Your task to perform on an android device: Open Youtube and go to "Your channel" Image 0: 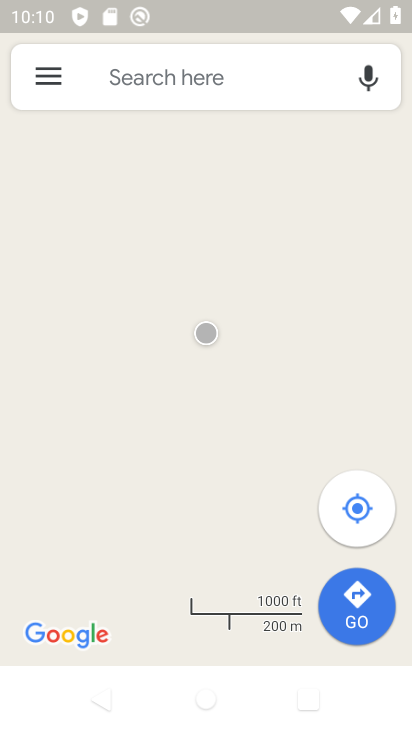
Step 0: press home button
Your task to perform on an android device: Open Youtube and go to "Your channel" Image 1: 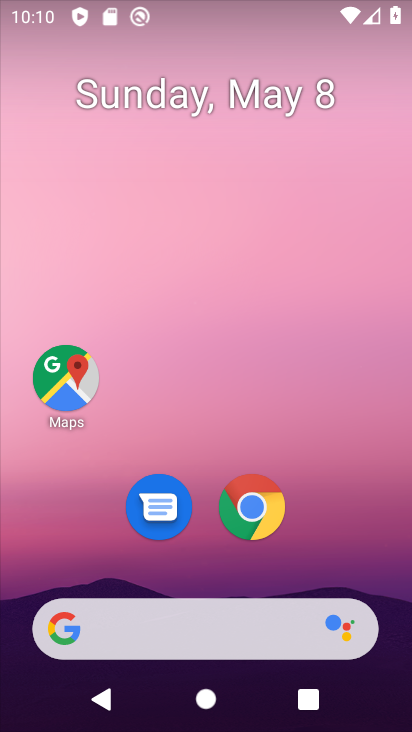
Step 1: drag from (236, 576) to (279, 174)
Your task to perform on an android device: Open Youtube and go to "Your channel" Image 2: 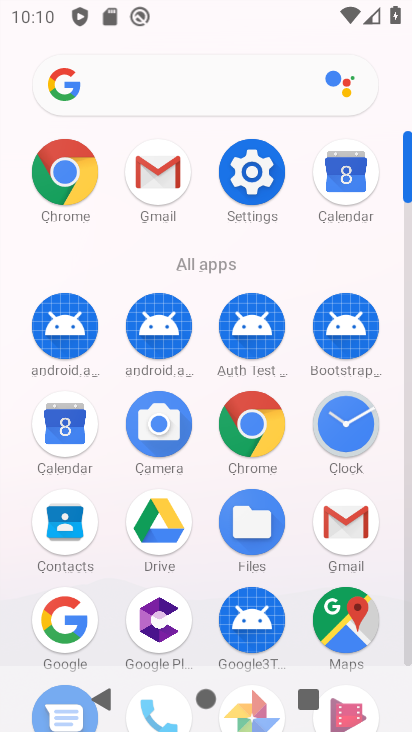
Step 2: drag from (299, 644) to (294, 334)
Your task to perform on an android device: Open Youtube and go to "Your channel" Image 3: 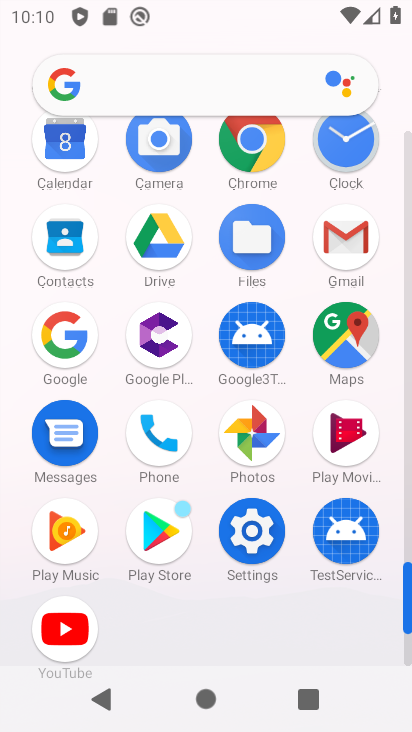
Step 3: click (59, 638)
Your task to perform on an android device: Open Youtube and go to "Your channel" Image 4: 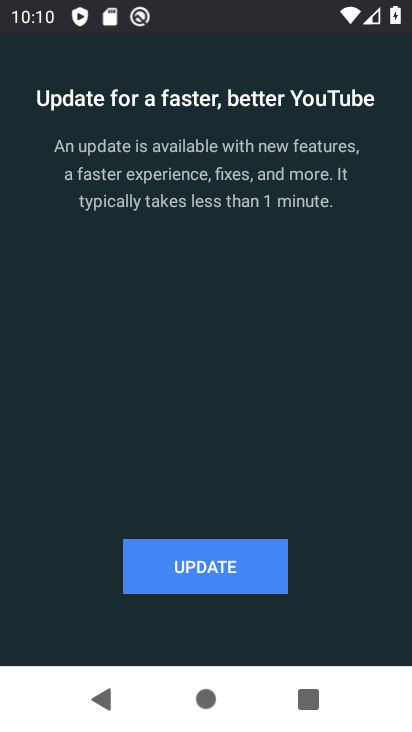
Step 4: click (198, 554)
Your task to perform on an android device: Open Youtube and go to "Your channel" Image 5: 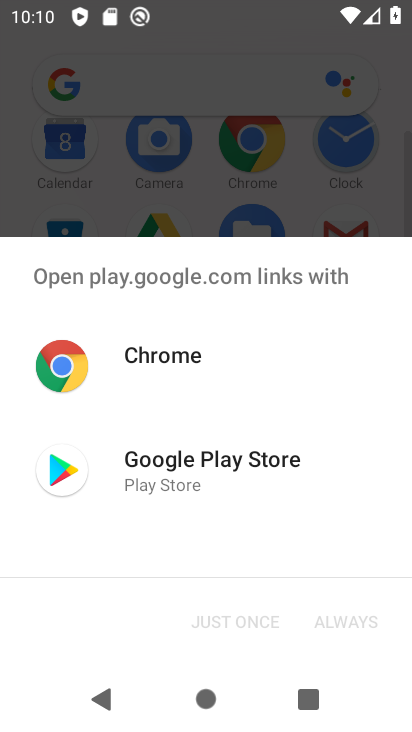
Step 5: drag from (164, 556) to (207, 526)
Your task to perform on an android device: Open Youtube and go to "Your channel" Image 6: 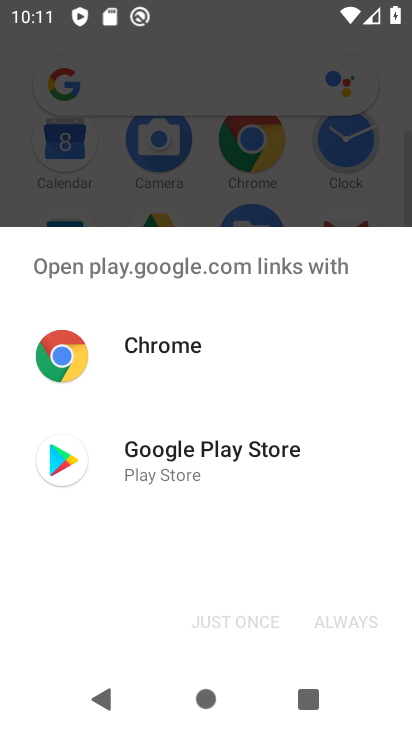
Step 6: click (267, 492)
Your task to perform on an android device: Open Youtube and go to "Your channel" Image 7: 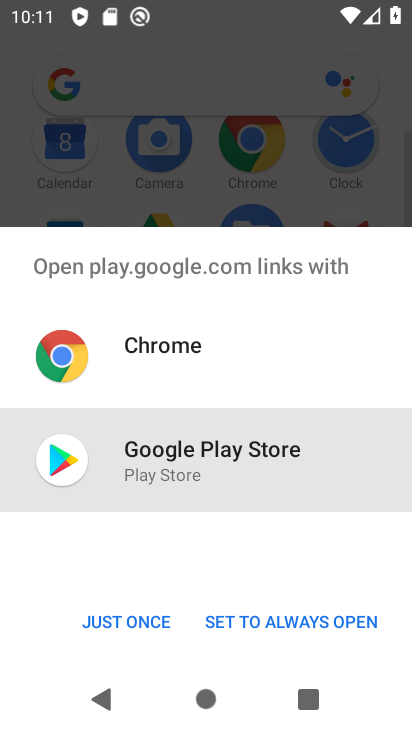
Step 7: click (90, 626)
Your task to perform on an android device: Open Youtube and go to "Your channel" Image 8: 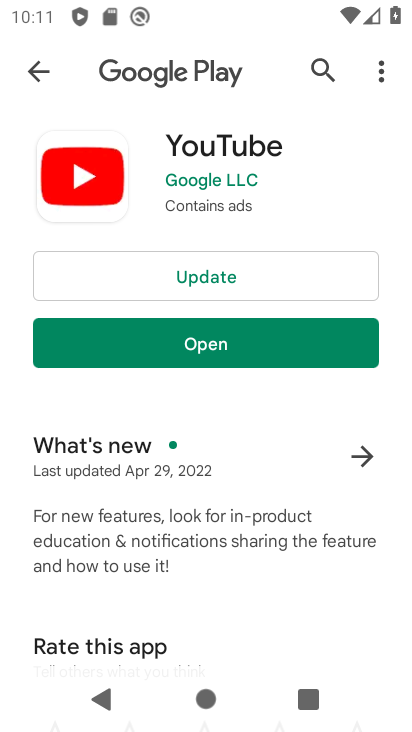
Step 8: click (223, 283)
Your task to perform on an android device: Open Youtube and go to "Your channel" Image 9: 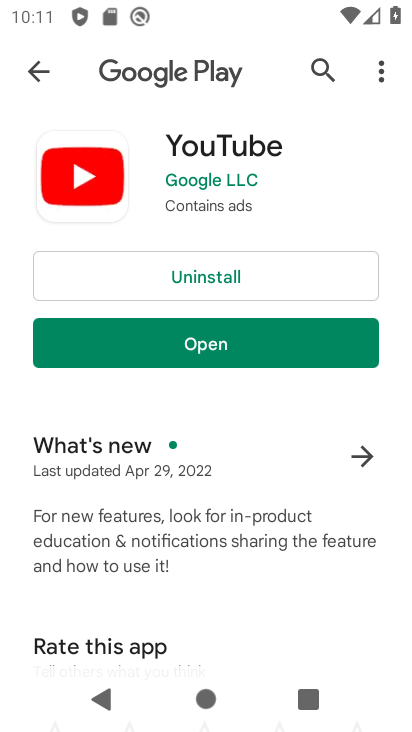
Step 9: click (212, 339)
Your task to perform on an android device: Open Youtube and go to "Your channel" Image 10: 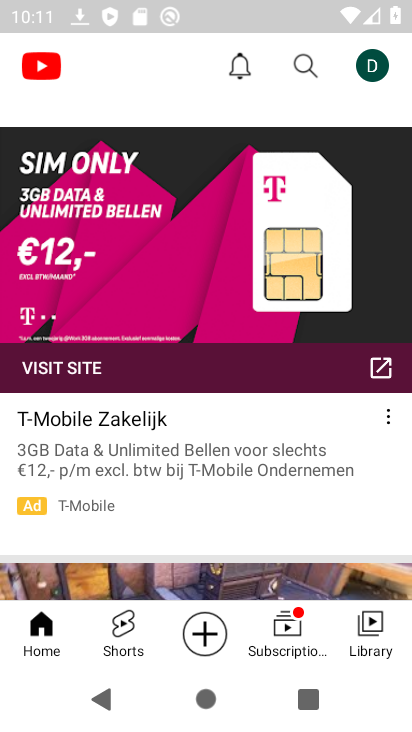
Step 10: click (365, 69)
Your task to perform on an android device: Open Youtube and go to "Your channel" Image 11: 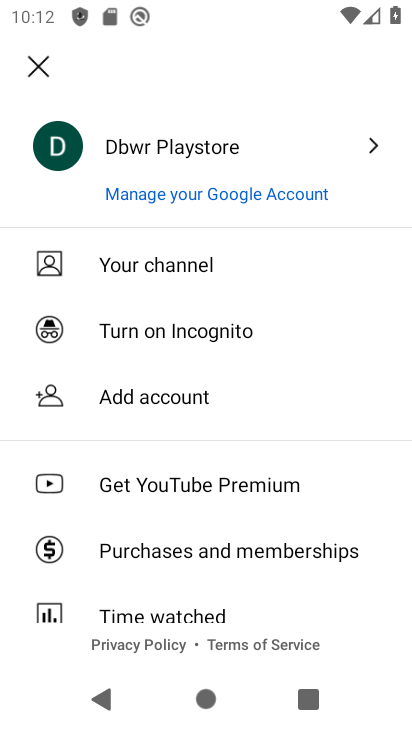
Step 11: click (115, 263)
Your task to perform on an android device: Open Youtube and go to "Your channel" Image 12: 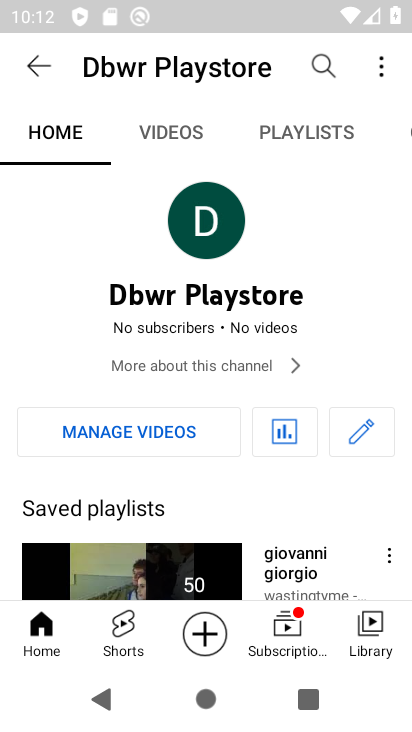
Step 12: task complete